Your task to perform on an android device: turn smart compose on in the gmail app Image 0: 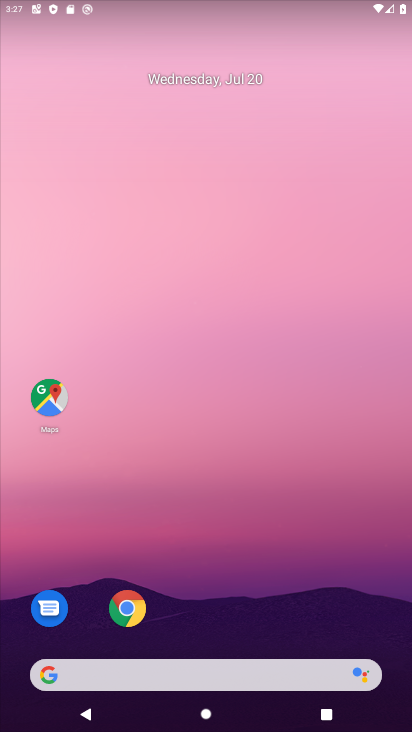
Step 0: drag from (236, 648) to (211, 125)
Your task to perform on an android device: turn smart compose on in the gmail app Image 1: 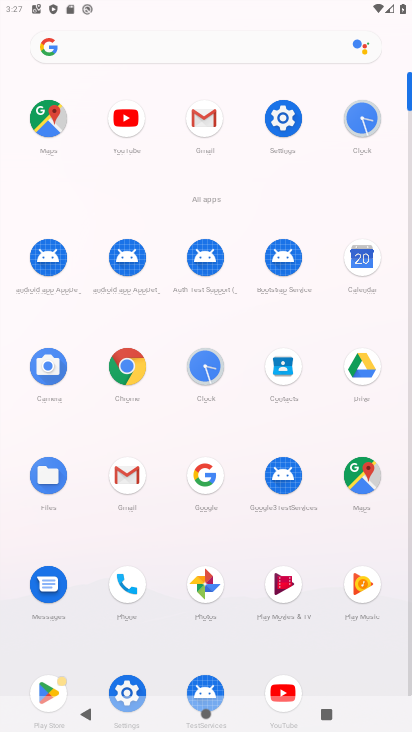
Step 1: click (194, 125)
Your task to perform on an android device: turn smart compose on in the gmail app Image 2: 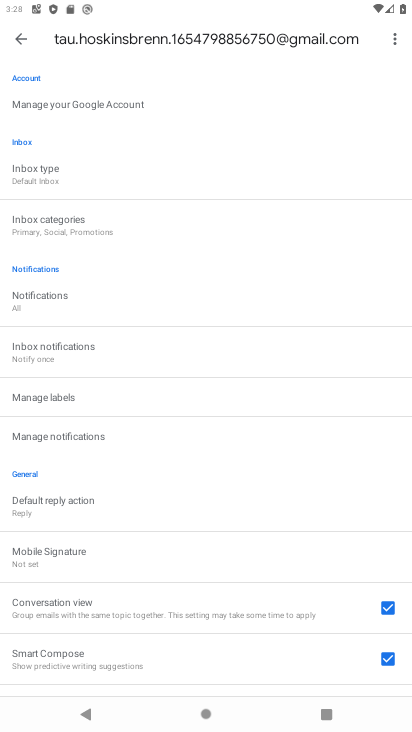
Step 2: task complete